Your task to perform on an android device: How much does a 2 bedroom apartment rent for in Los Angeles? Image 0: 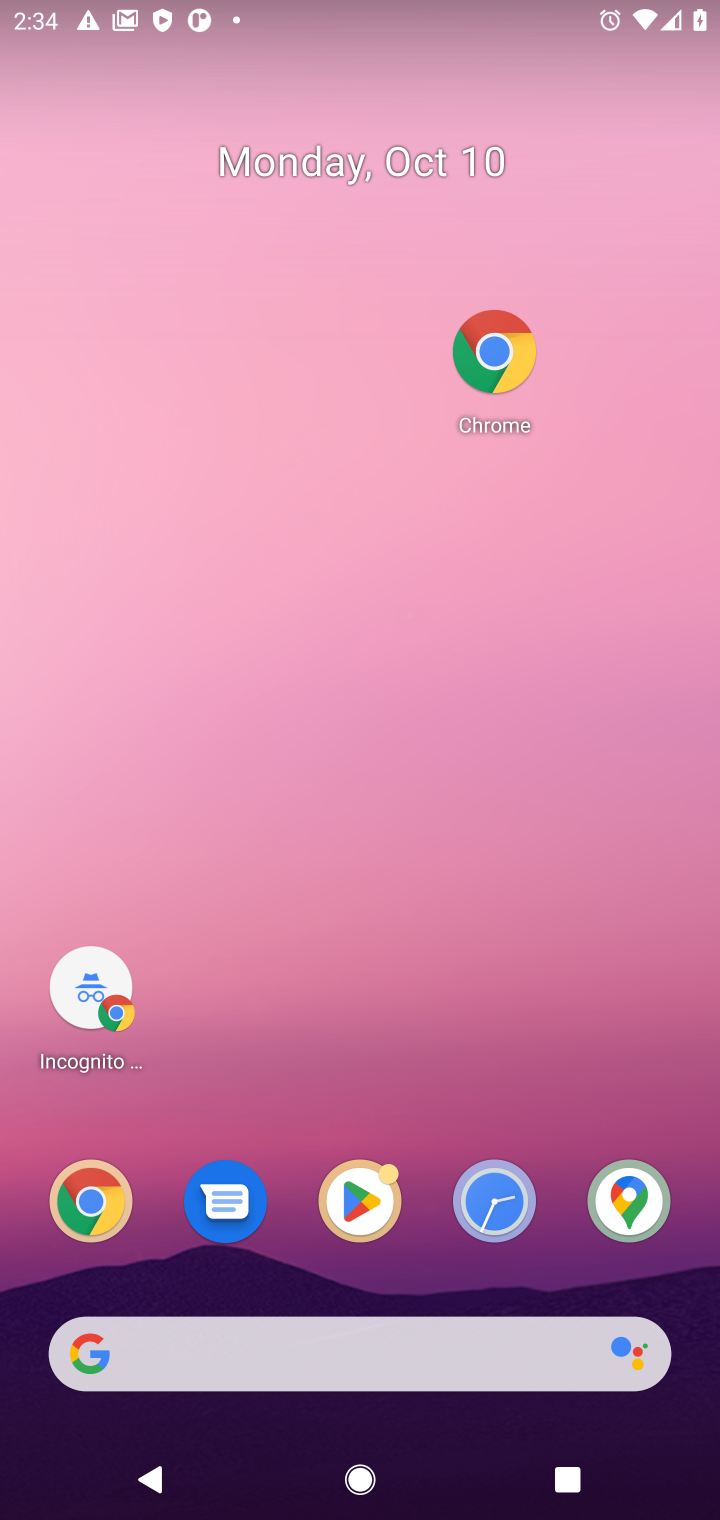
Step 0: click (497, 356)
Your task to perform on an android device: How much does a 2 bedroom apartment rent for in Los Angeles? Image 1: 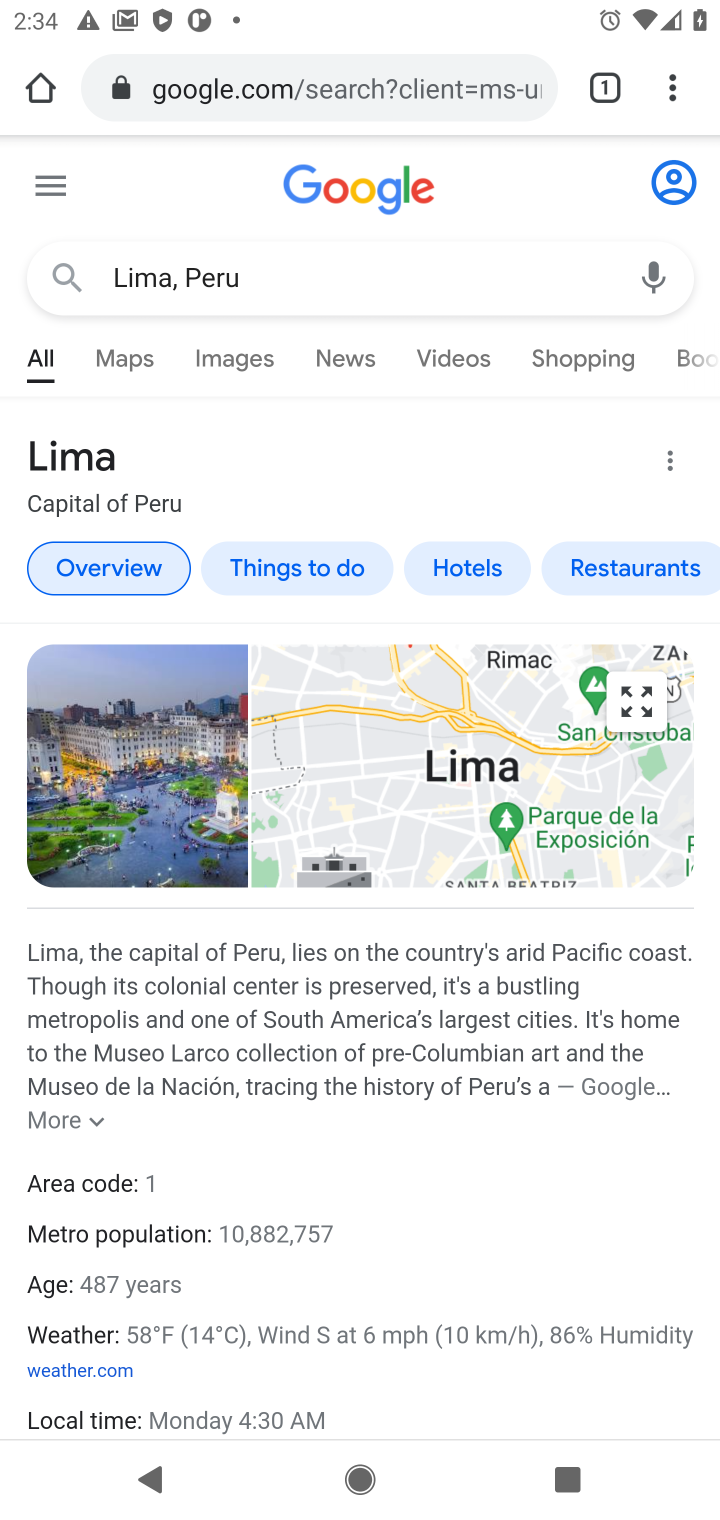
Step 1: click (421, 271)
Your task to perform on an android device: How much does a 2 bedroom apartment rent for in Los Angeles? Image 2: 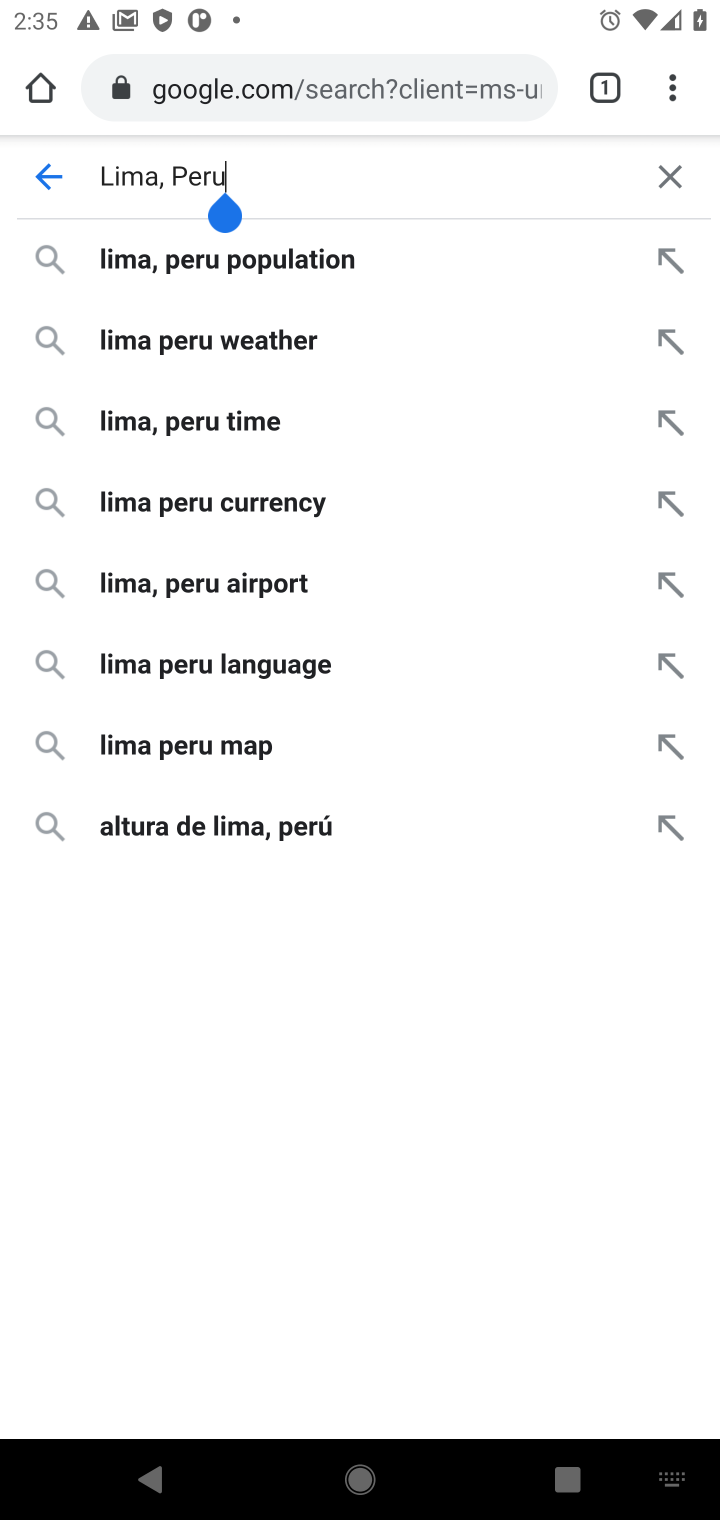
Step 2: click (665, 169)
Your task to perform on an android device: How much does a 2 bedroom apartment rent for in Los Angeles? Image 3: 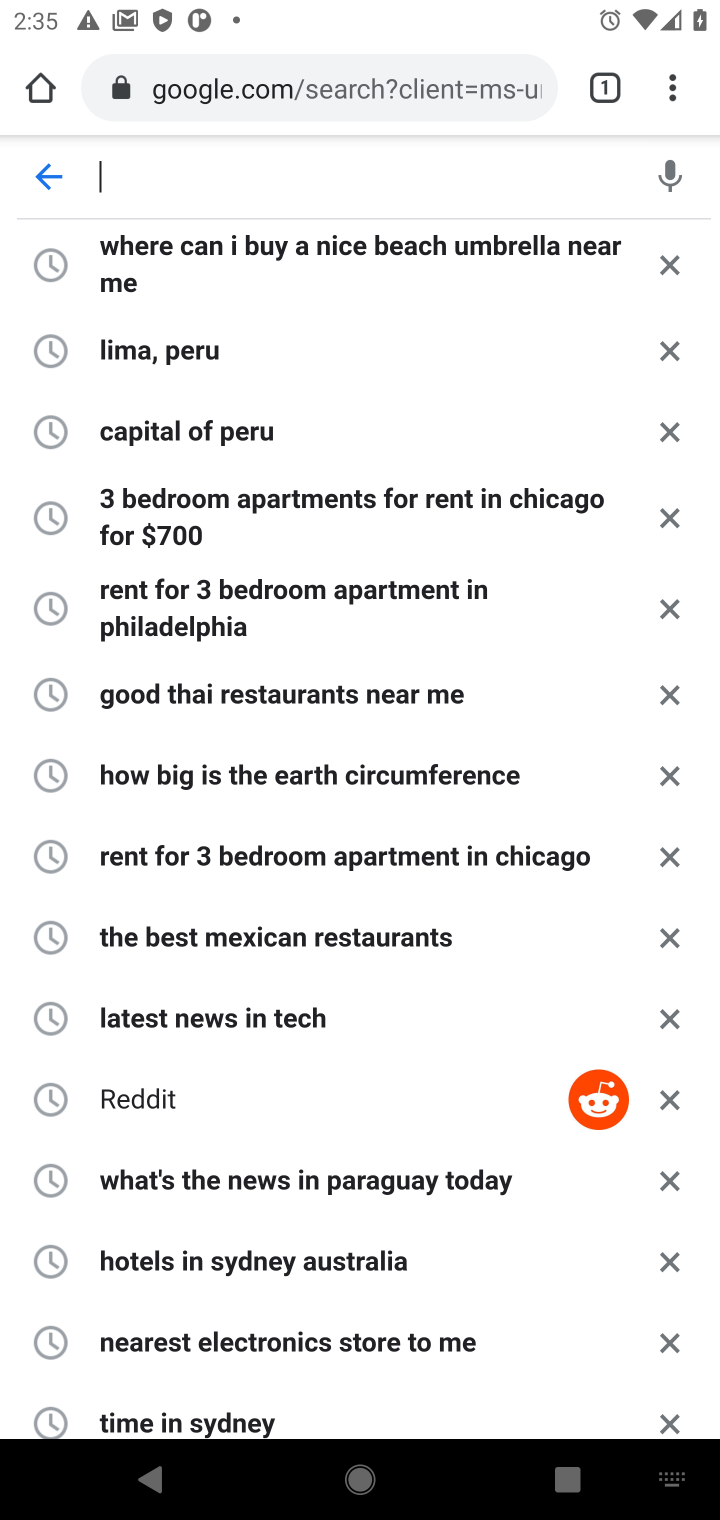
Step 3: type "rent for 2 bedroom apartment in los angeles"
Your task to perform on an android device: How much does a 2 bedroom apartment rent for in Los Angeles? Image 4: 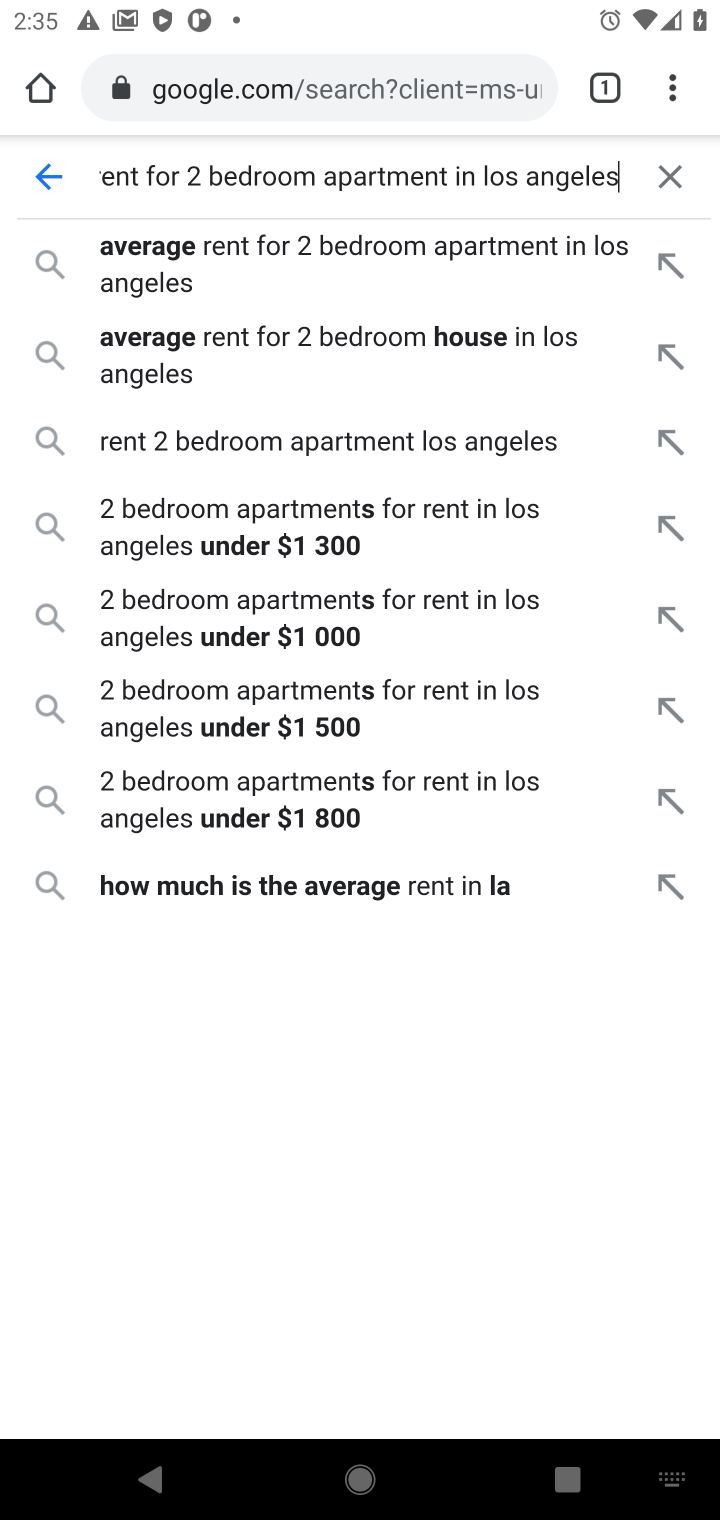
Step 4: click (295, 253)
Your task to perform on an android device: How much does a 2 bedroom apartment rent for in Los Angeles? Image 5: 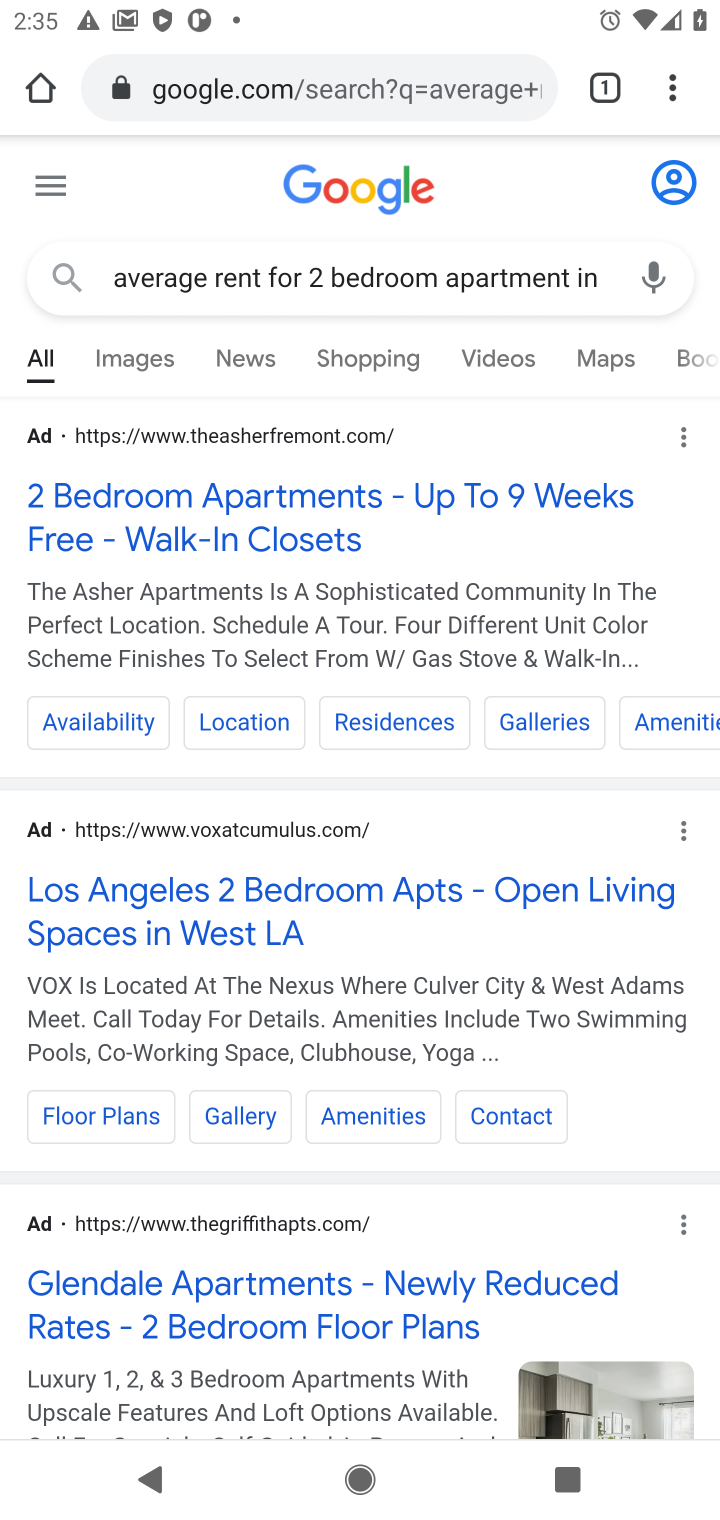
Step 5: click (252, 541)
Your task to perform on an android device: How much does a 2 bedroom apartment rent for in Los Angeles? Image 6: 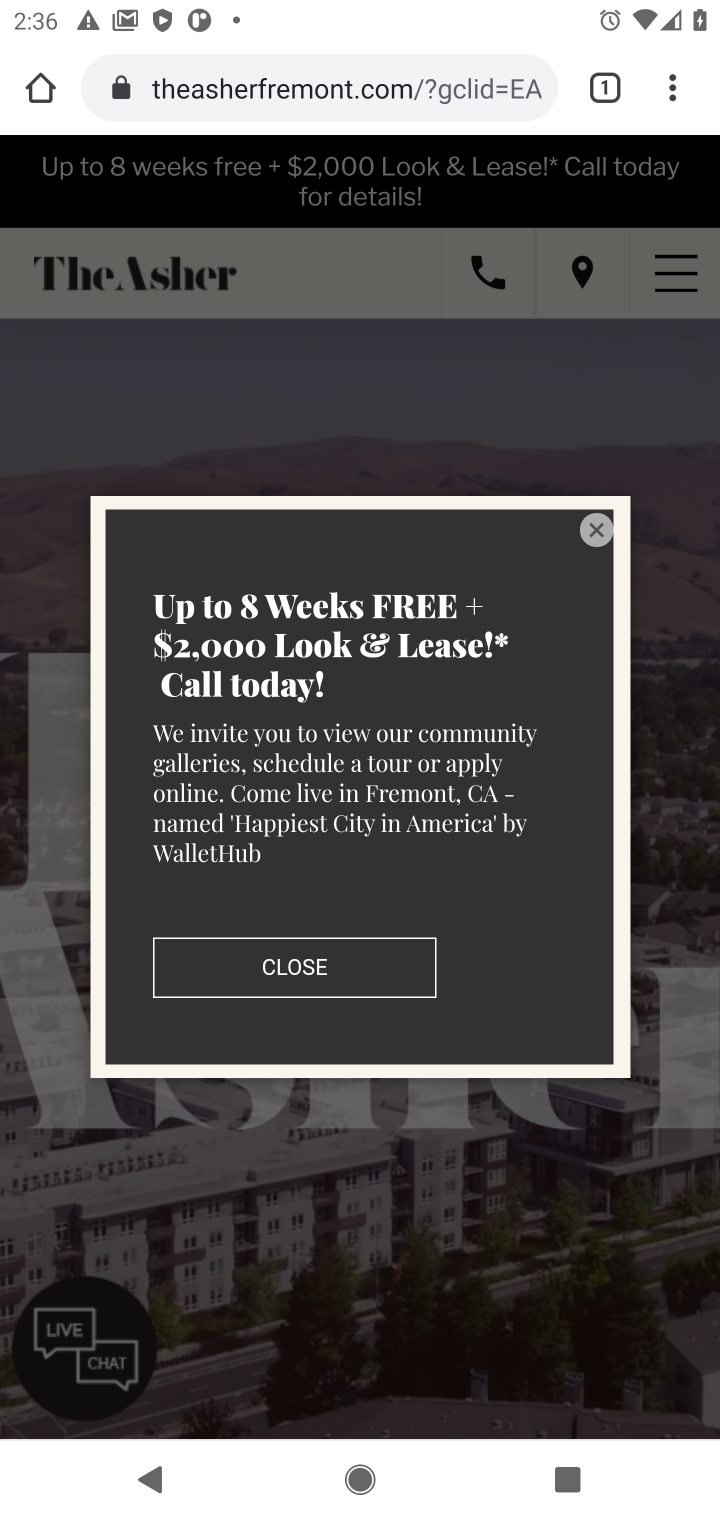
Step 6: click (604, 540)
Your task to perform on an android device: How much does a 2 bedroom apartment rent for in Los Angeles? Image 7: 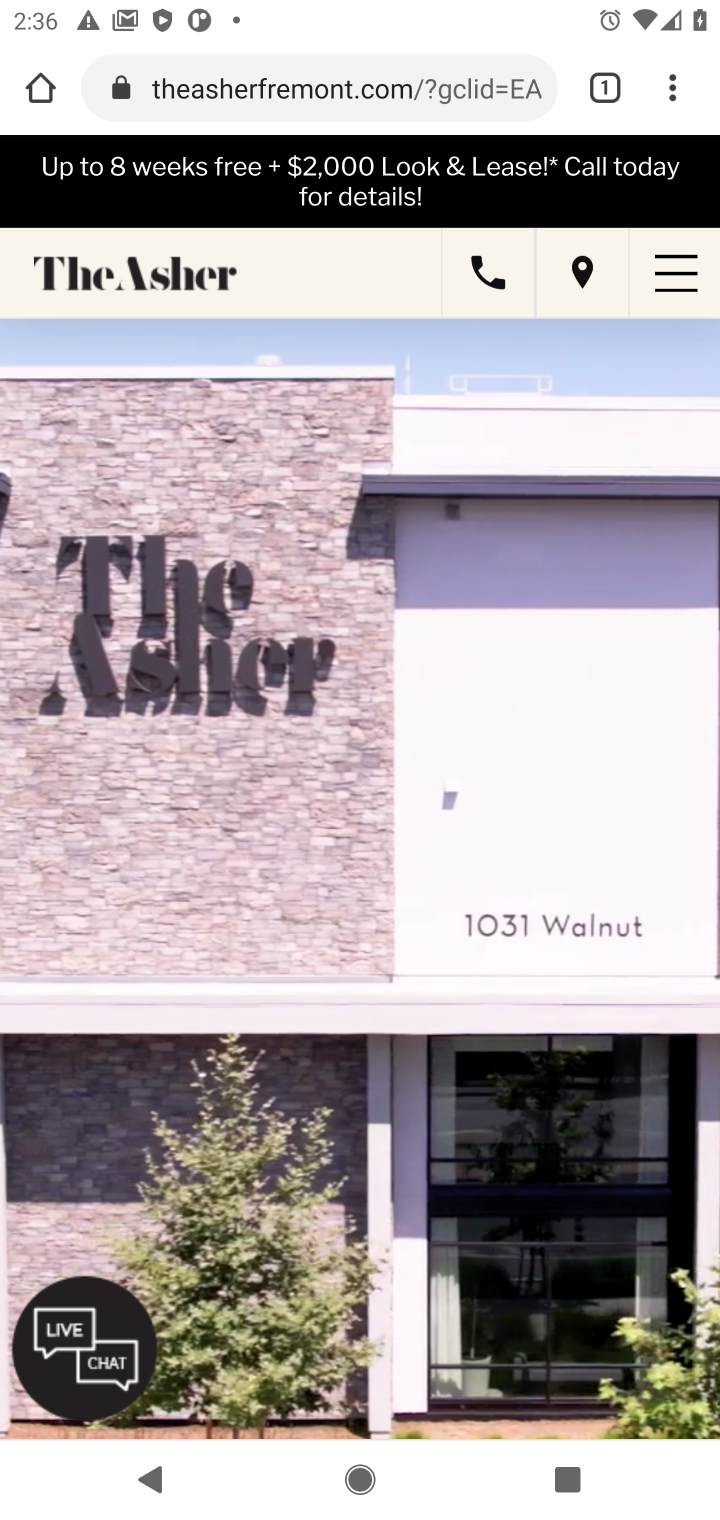
Step 7: click (315, 86)
Your task to perform on an android device: How much does a 2 bedroom apartment rent for in Los Angeles? Image 8: 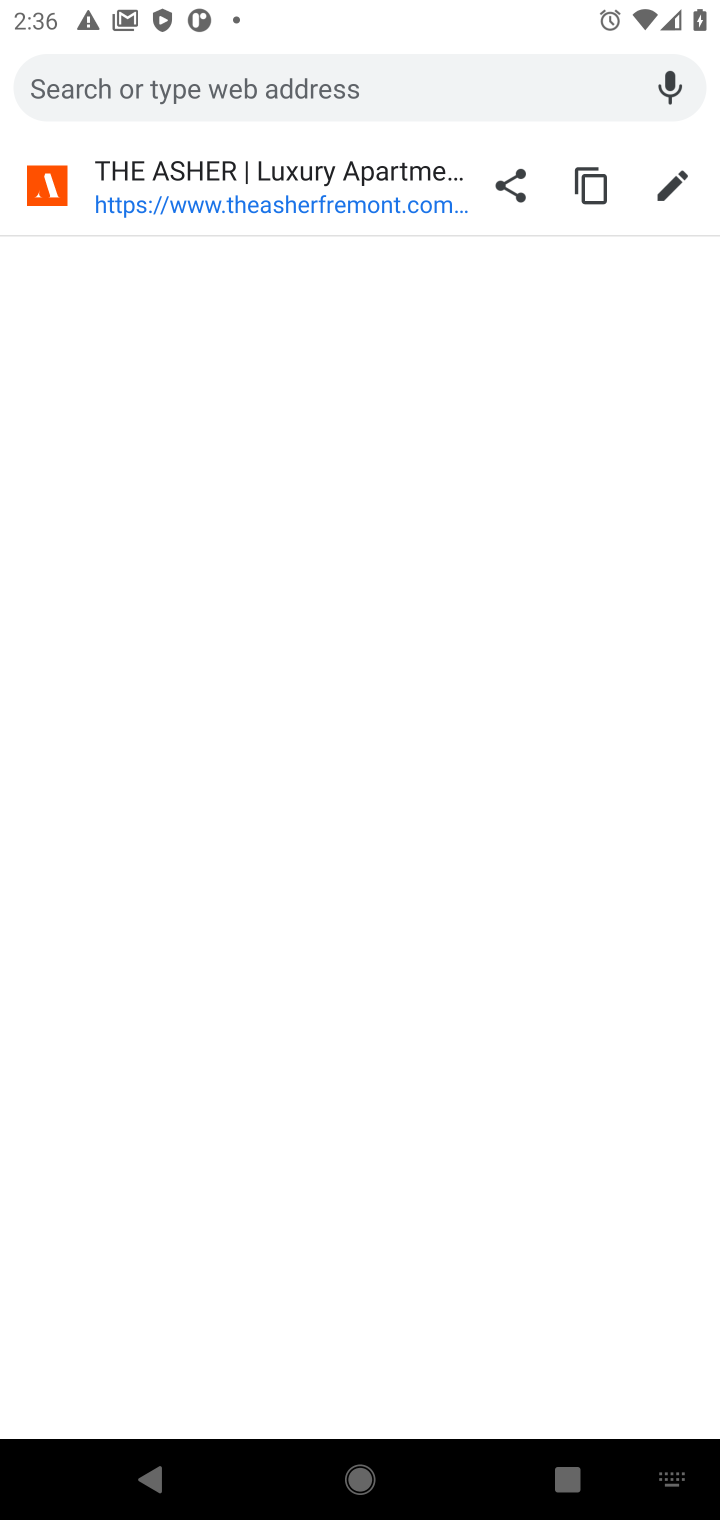
Step 8: press back button
Your task to perform on an android device: How much does a 2 bedroom apartment rent for in Los Angeles? Image 9: 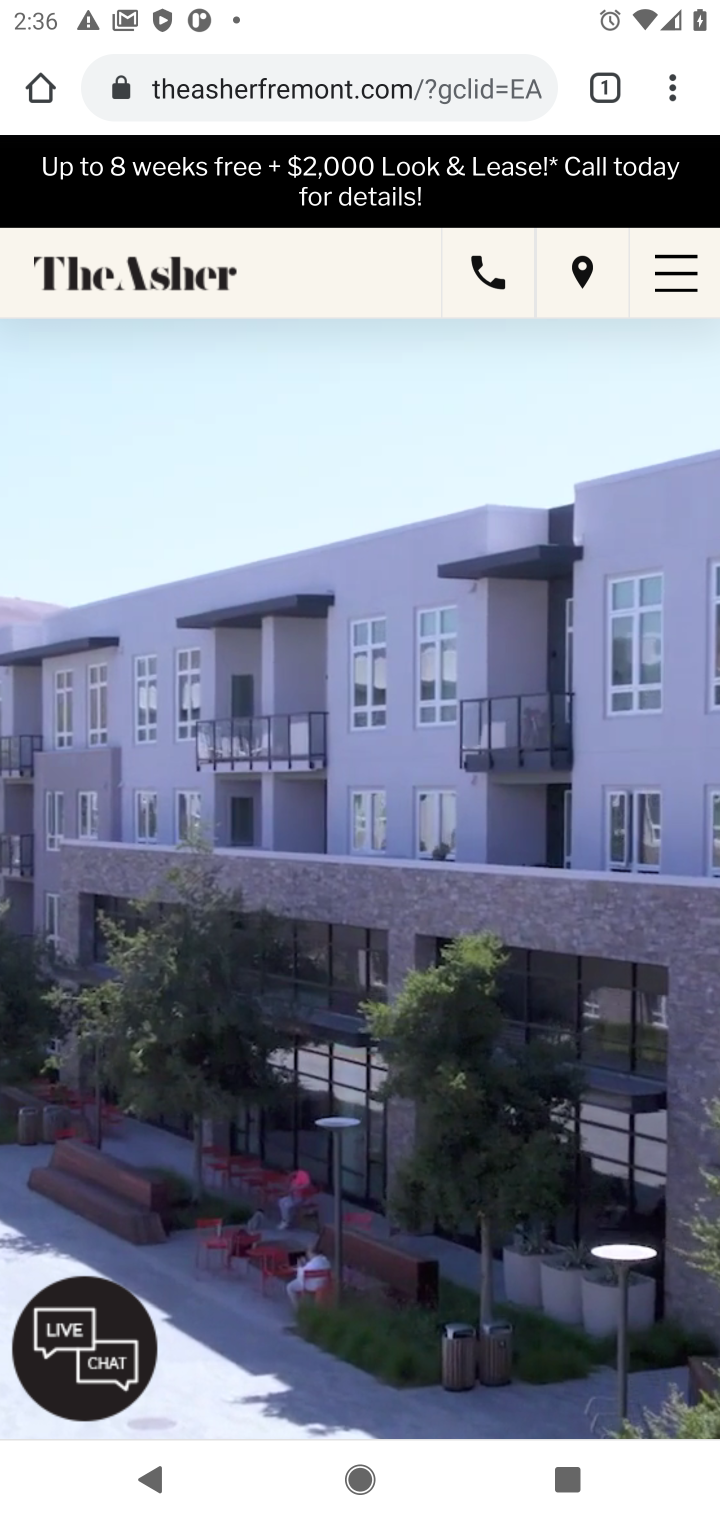
Step 9: press back button
Your task to perform on an android device: How much does a 2 bedroom apartment rent for in Los Angeles? Image 10: 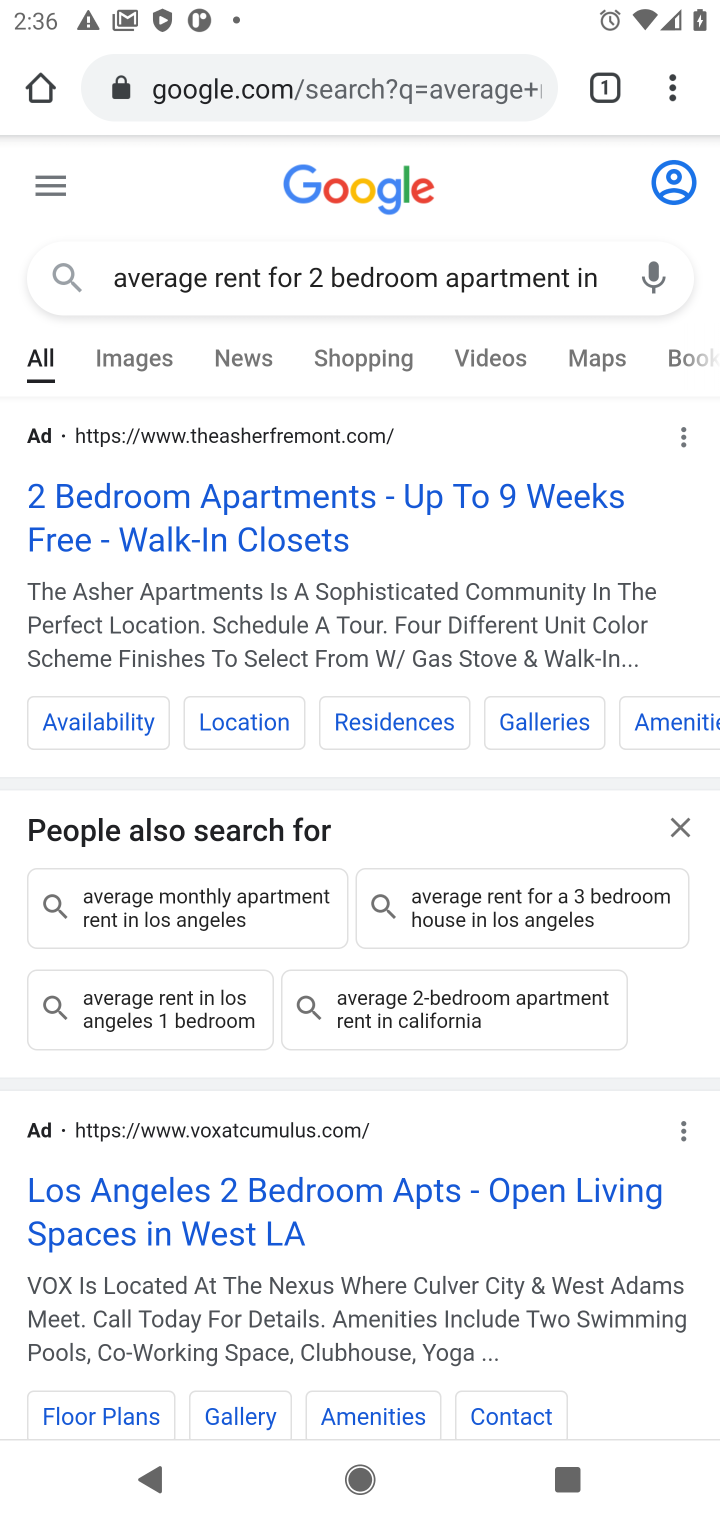
Step 10: drag from (375, 1089) to (381, 721)
Your task to perform on an android device: How much does a 2 bedroom apartment rent for in Los Angeles? Image 11: 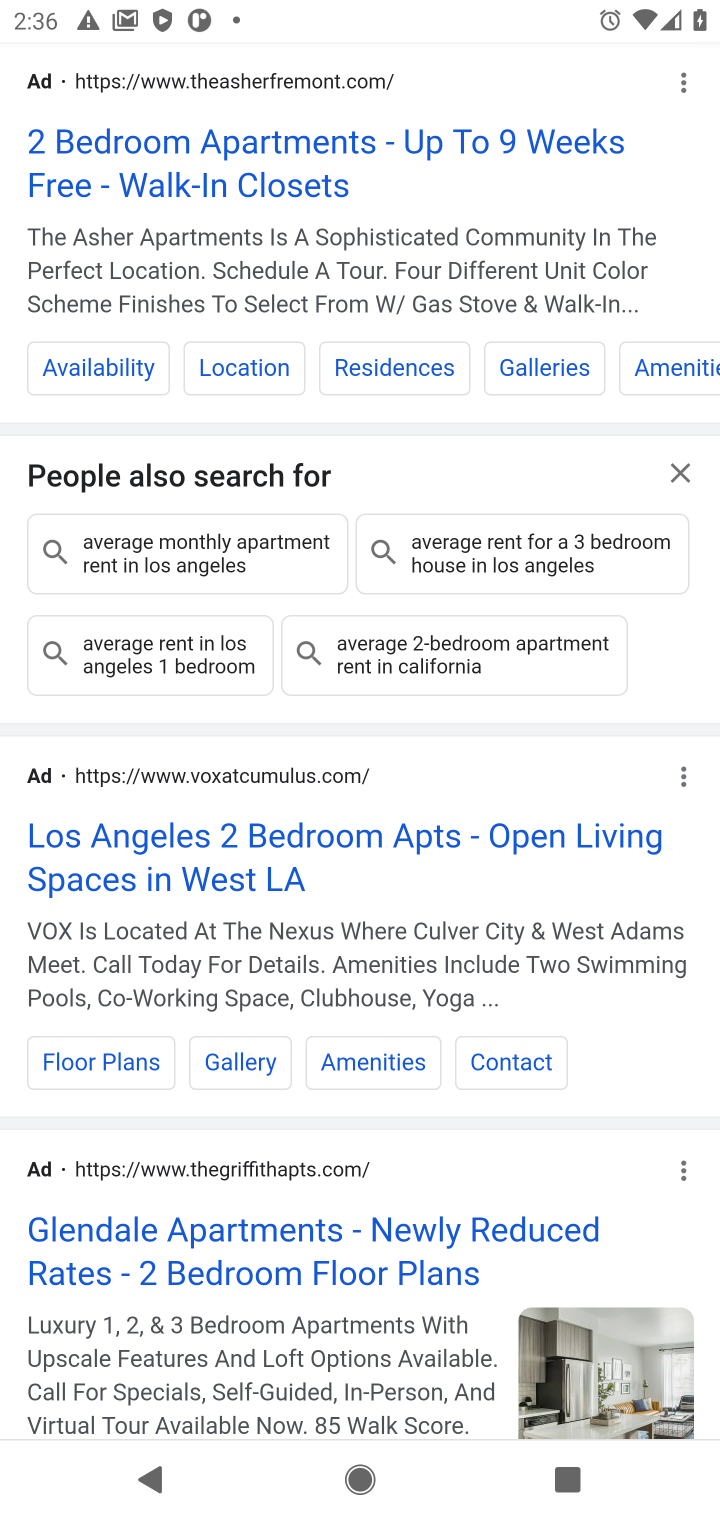
Step 11: drag from (249, 992) to (253, 514)
Your task to perform on an android device: How much does a 2 bedroom apartment rent for in Los Angeles? Image 12: 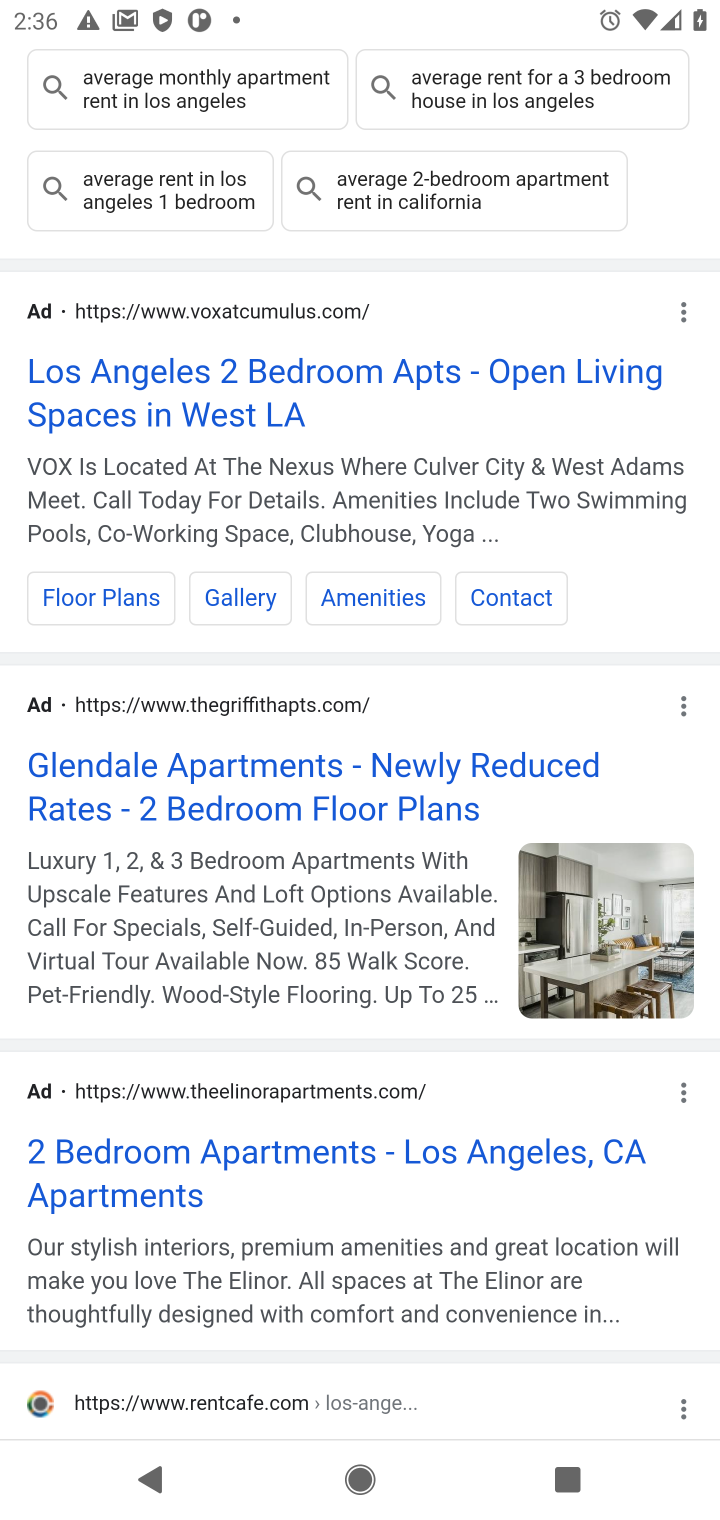
Step 12: drag from (301, 1092) to (321, 543)
Your task to perform on an android device: How much does a 2 bedroom apartment rent for in Los Angeles? Image 13: 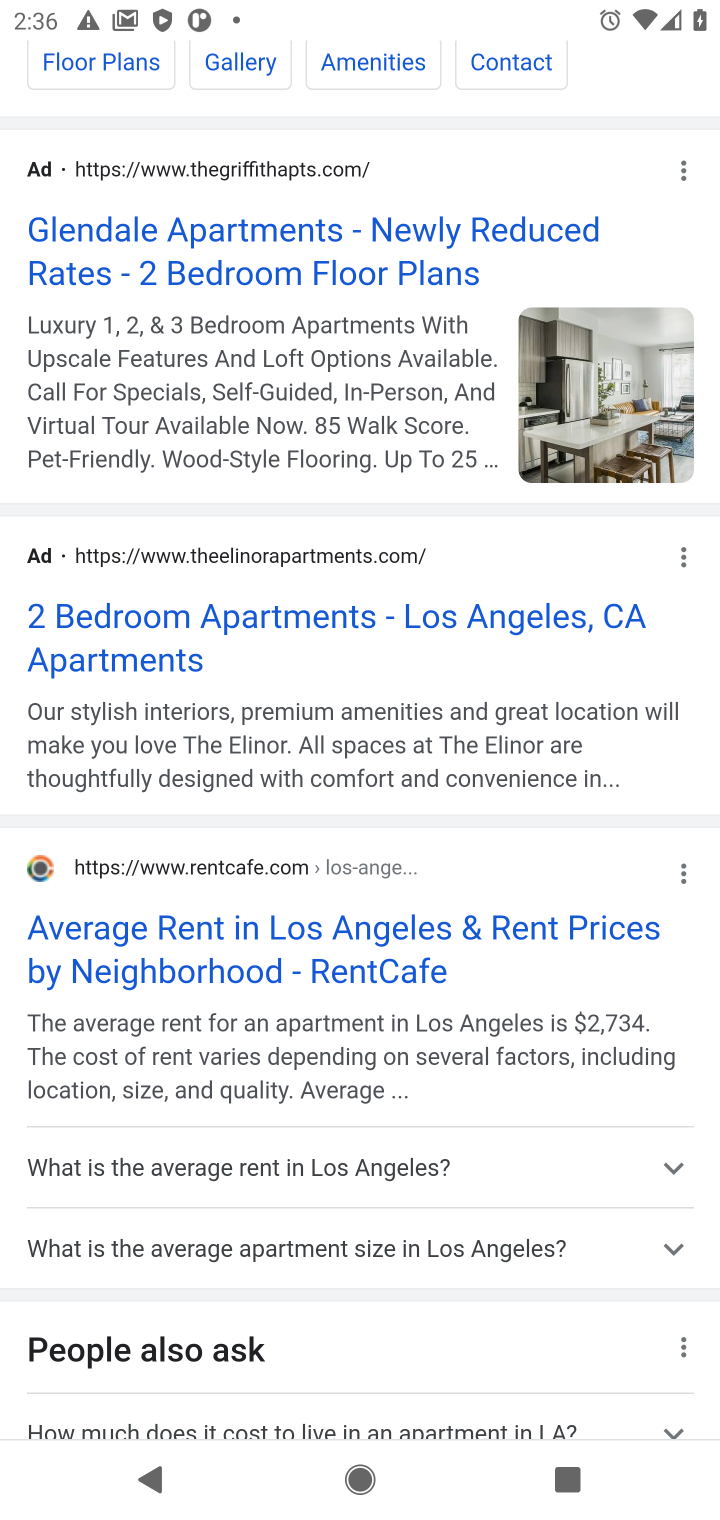
Step 13: click (155, 673)
Your task to perform on an android device: How much does a 2 bedroom apartment rent for in Los Angeles? Image 14: 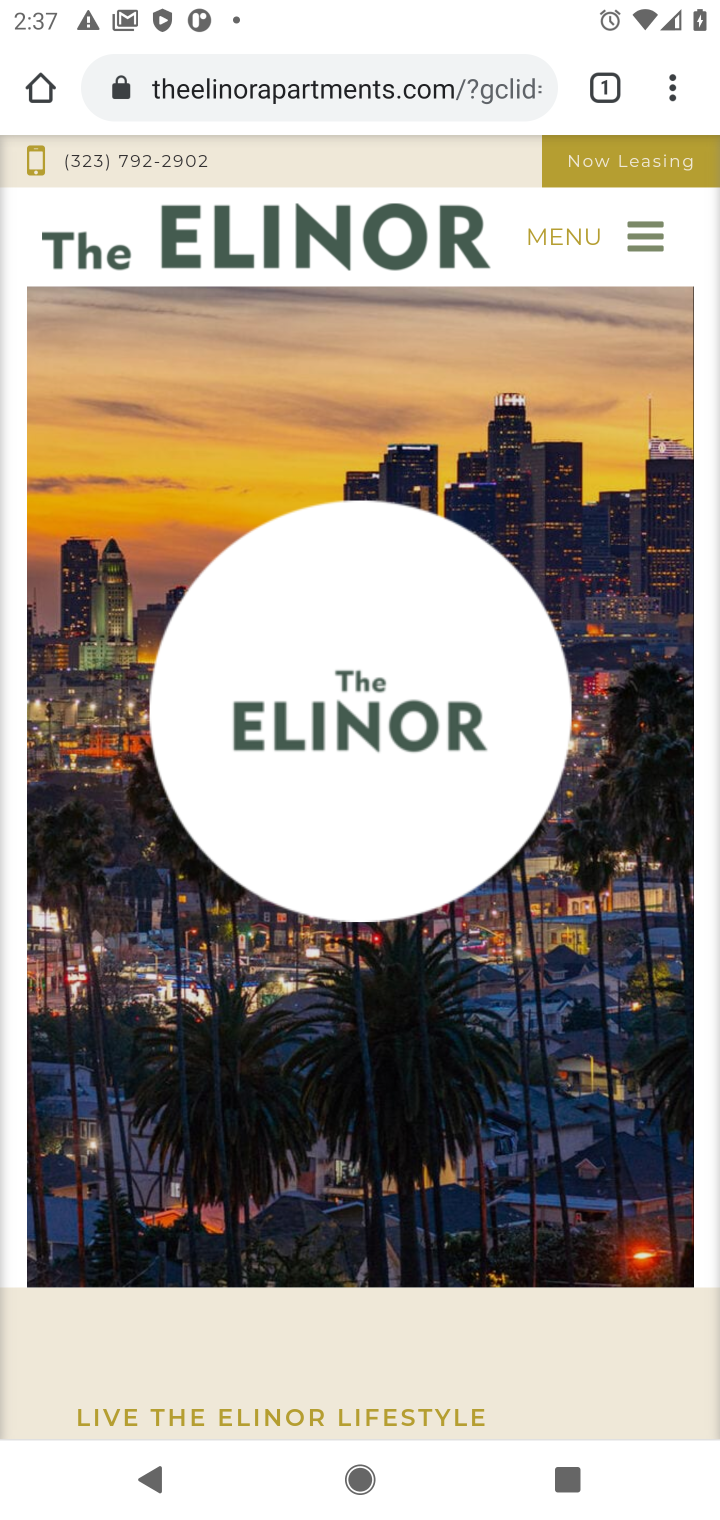
Step 14: drag from (427, 631) to (447, 325)
Your task to perform on an android device: How much does a 2 bedroom apartment rent for in Los Angeles? Image 15: 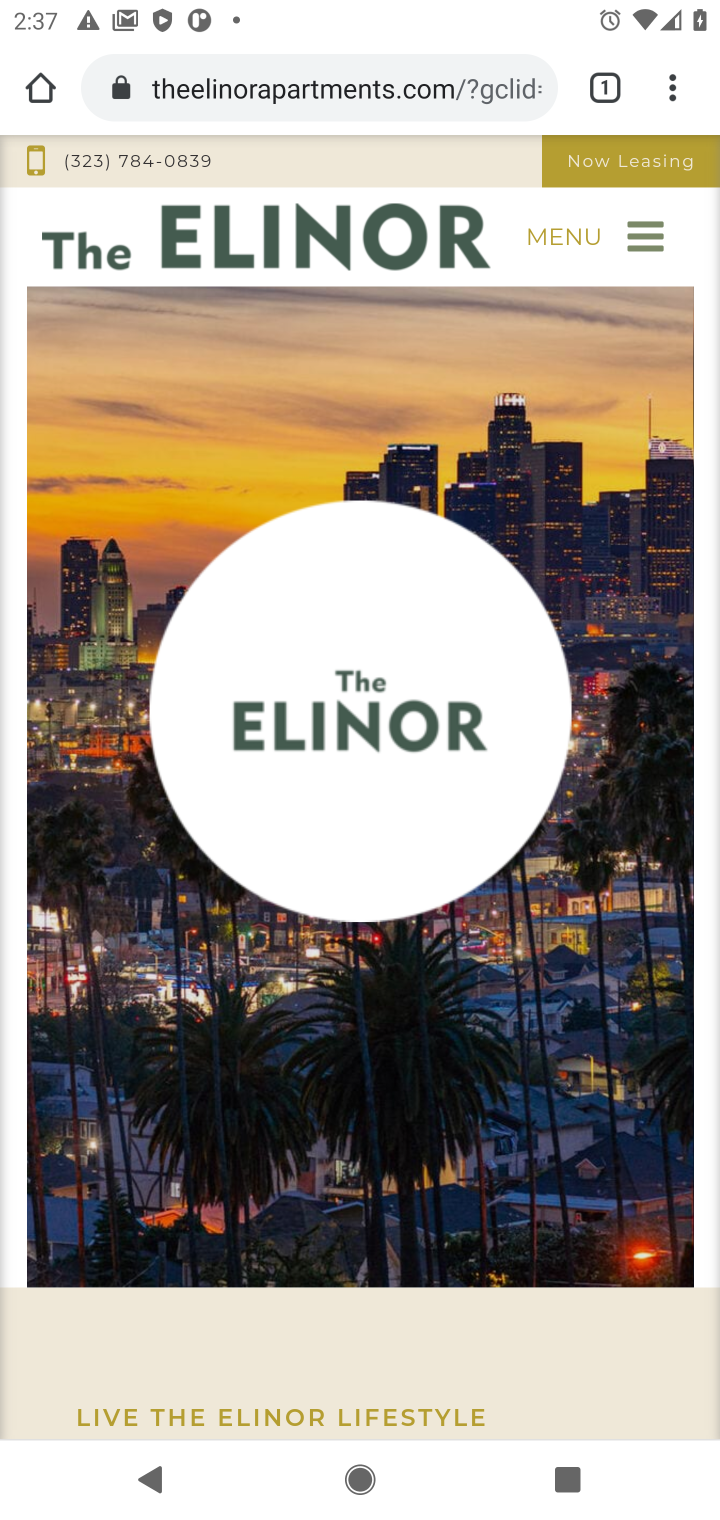
Step 15: press back button
Your task to perform on an android device: How much does a 2 bedroom apartment rent for in Los Angeles? Image 16: 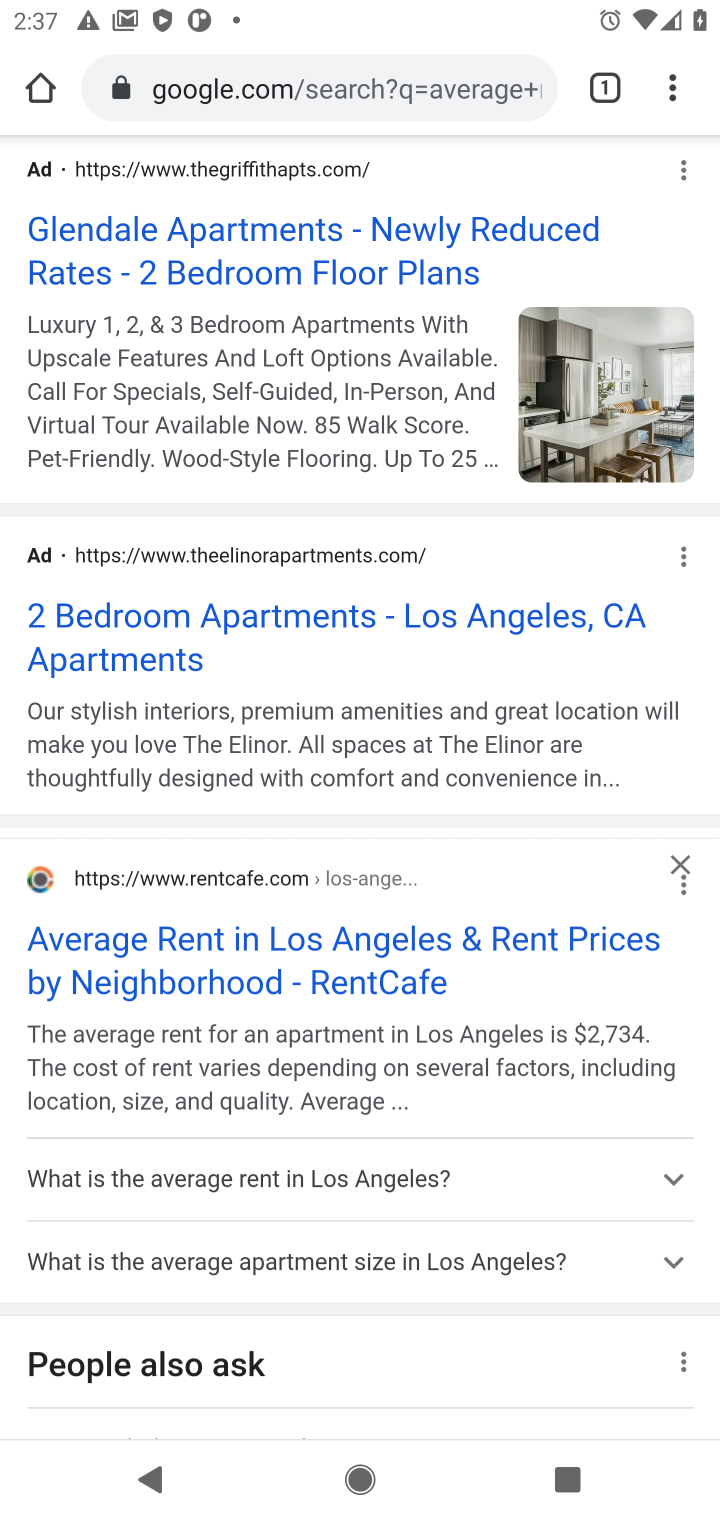
Step 16: drag from (439, 836) to (466, 343)
Your task to perform on an android device: How much does a 2 bedroom apartment rent for in Los Angeles? Image 17: 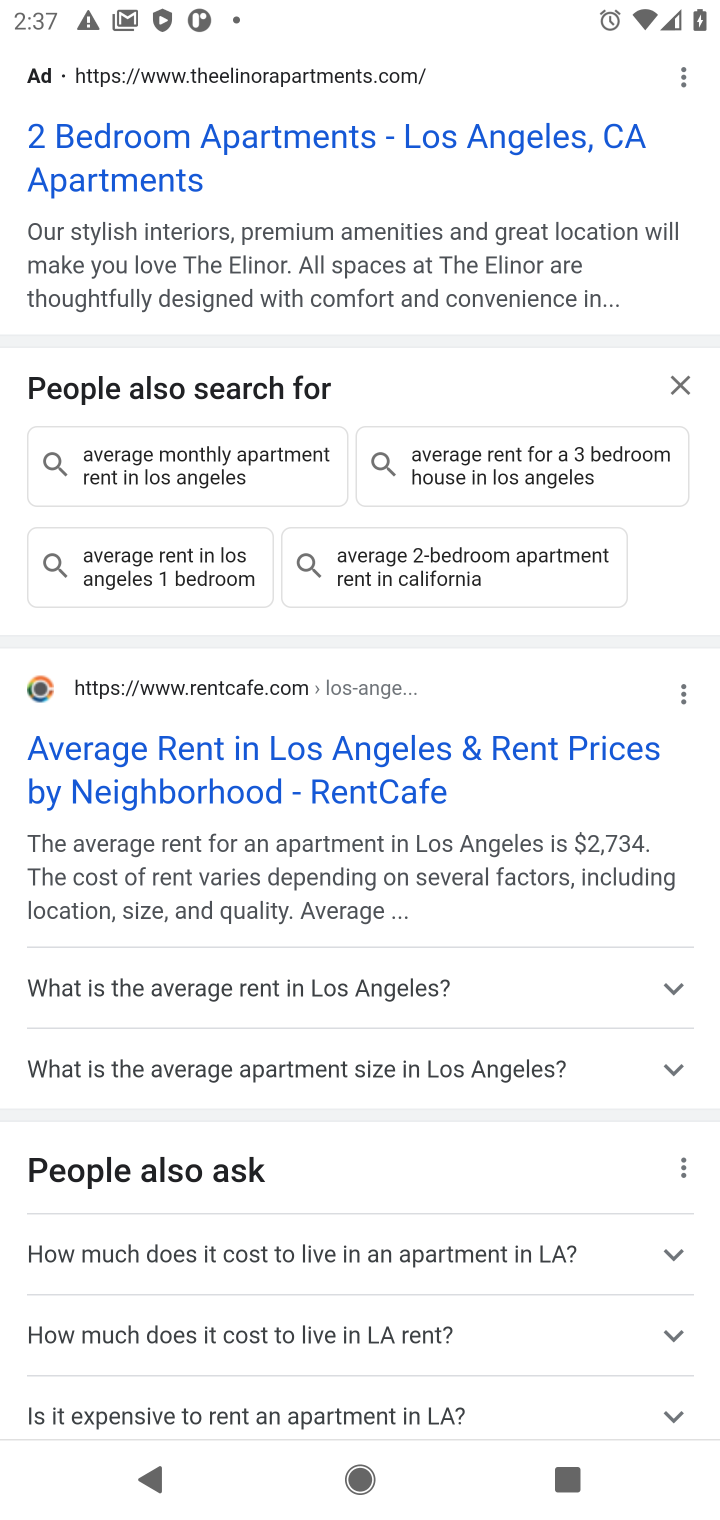
Step 17: drag from (309, 1122) to (359, 506)
Your task to perform on an android device: How much does a 2 bedroom apartment rent for in Los Angeles? Image 18: 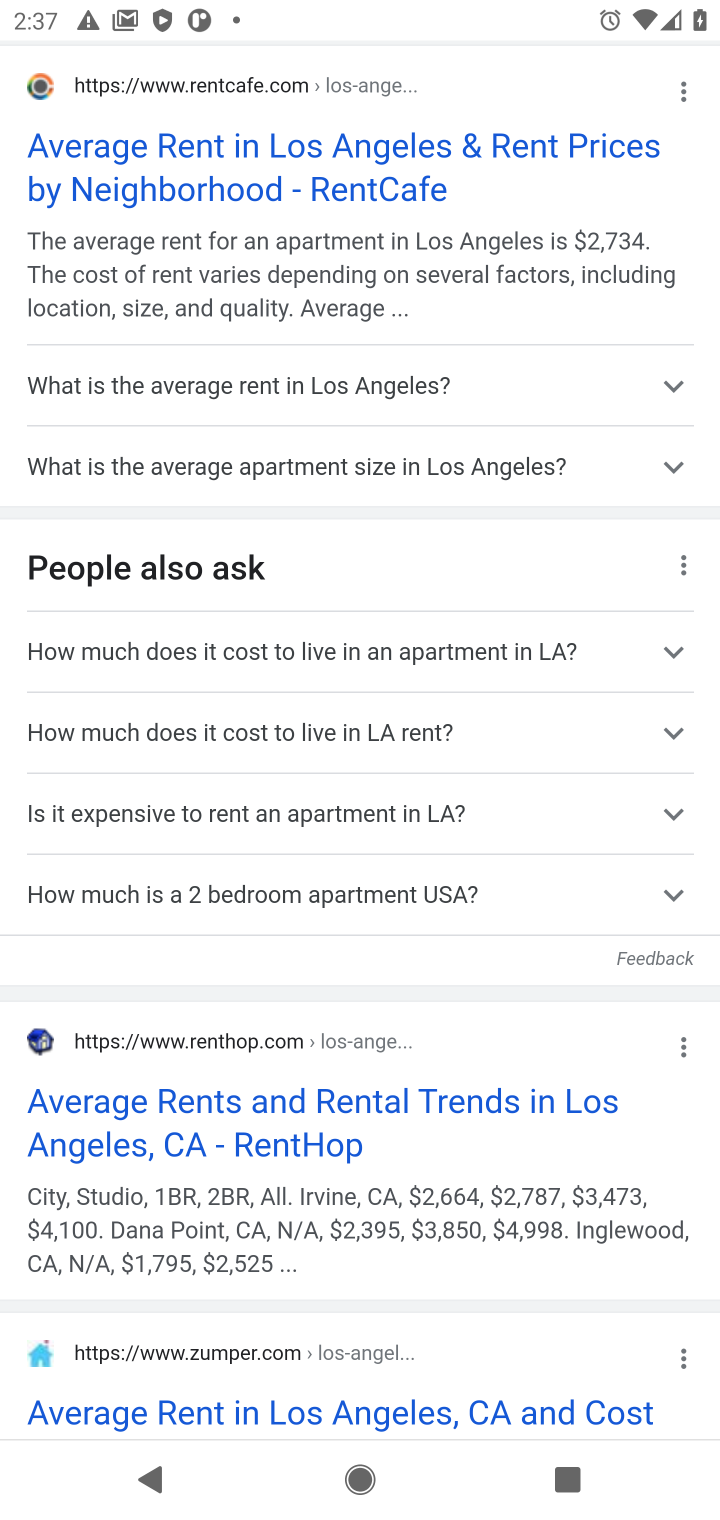
Step 18: click (194, 1138)
Your task to perform on an android device: How much does a 2 bedroom apartment rent for in Los Angeles? Image 19: 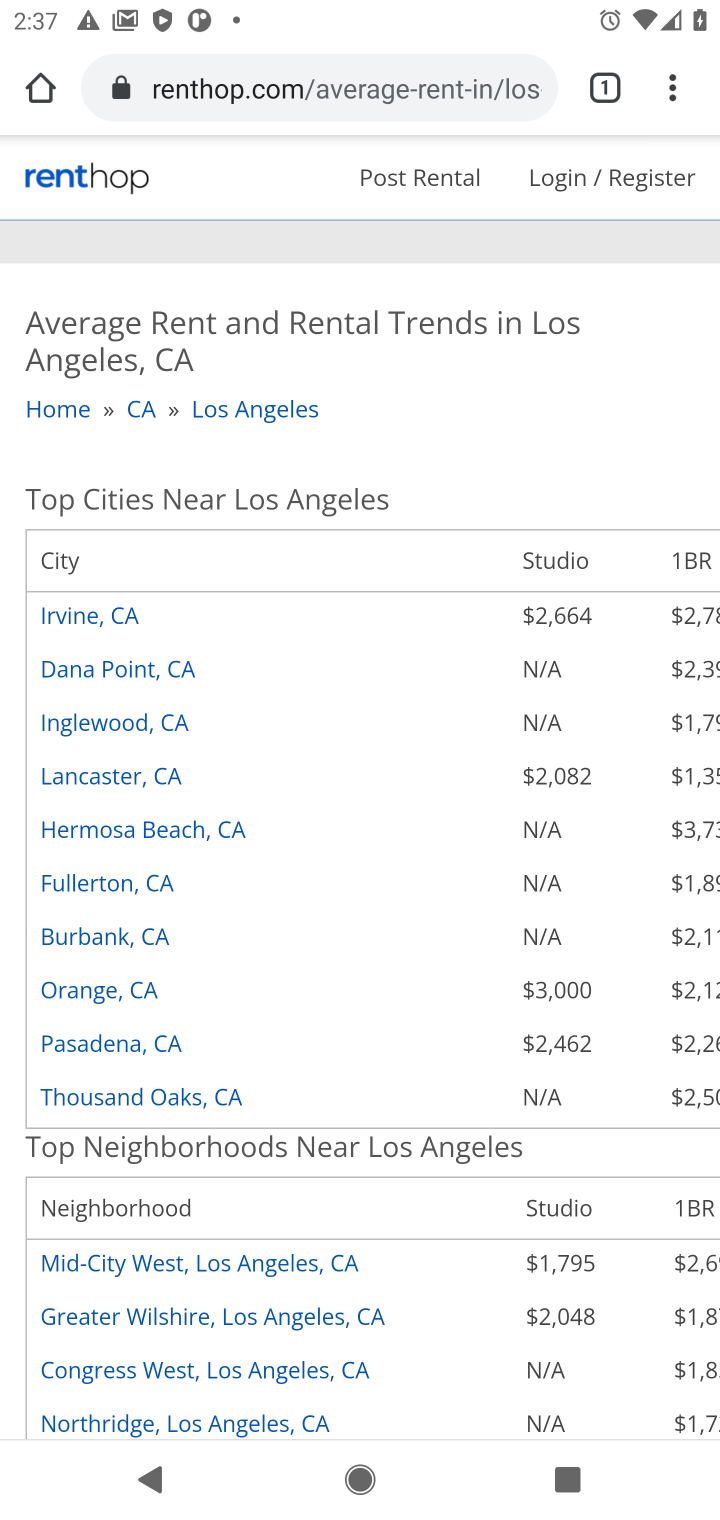
Step 19: task complete